Your task to perform on an android device: Add razer kraken to the cart on costco, then select checkout. Image 0: 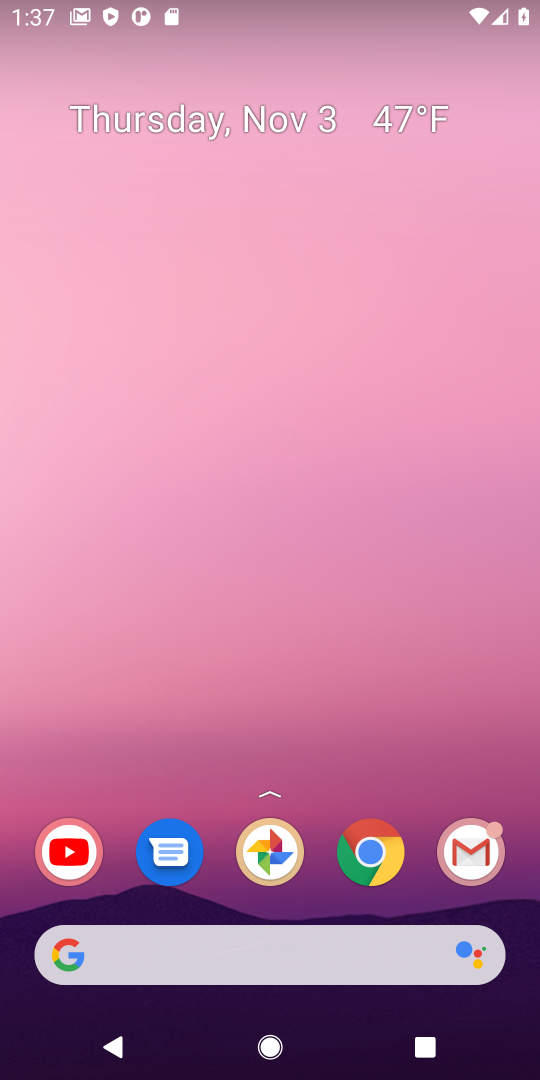
Step 0: click (383, 860)
Your task to perform on an android device: Add razer kraken to the cart on costco, then select checkout. Image 1: 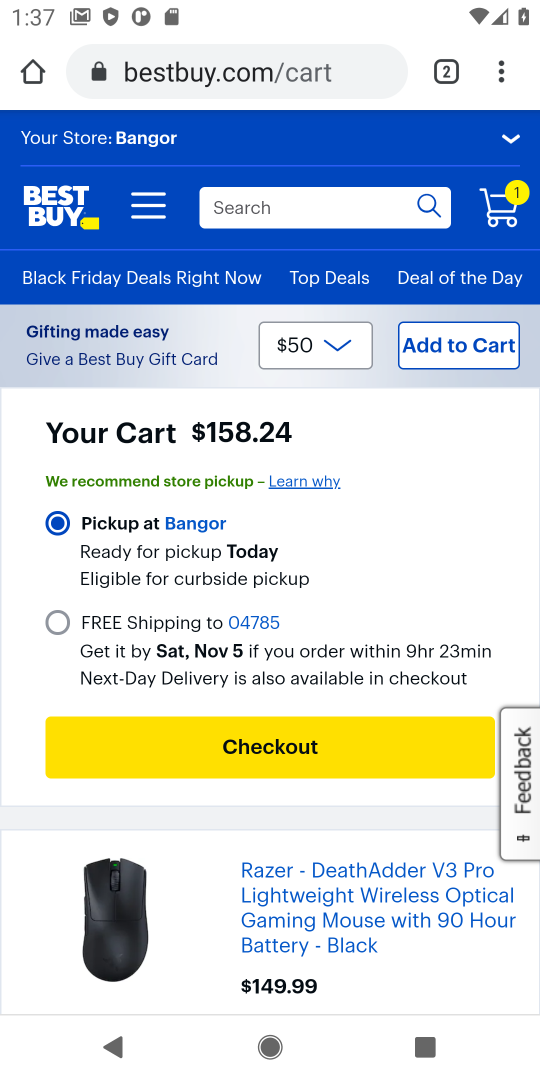
Step 1: click (263, 81)
Your task to perform on an android device: Add razer kraken to the cart on costco, then select checkout. Image 2: 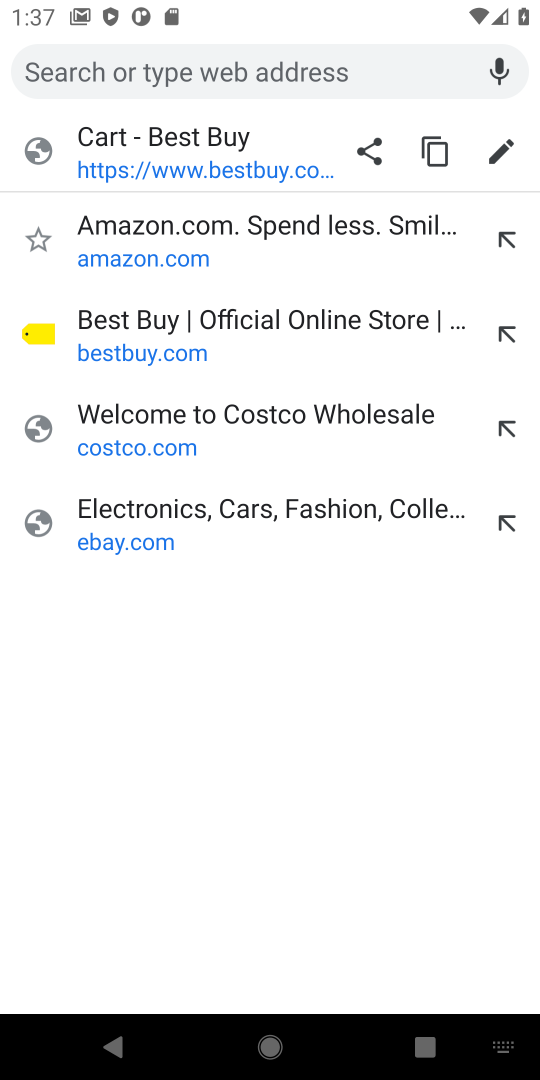
Step 2: type "costco.com"
Your task to perform on an android device: Add razer kraken to the cart on costco, then select checkout. Image 3: 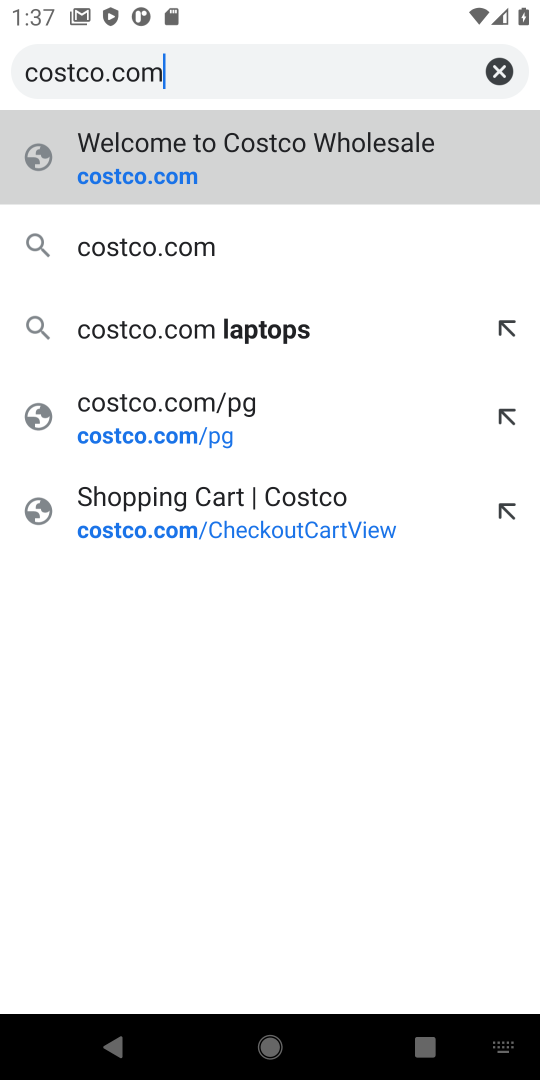
Step 3: click (121, 188)
Your task to perform on an android device: Add razer kraken to the cart on costco, then select checkout. Image 4: 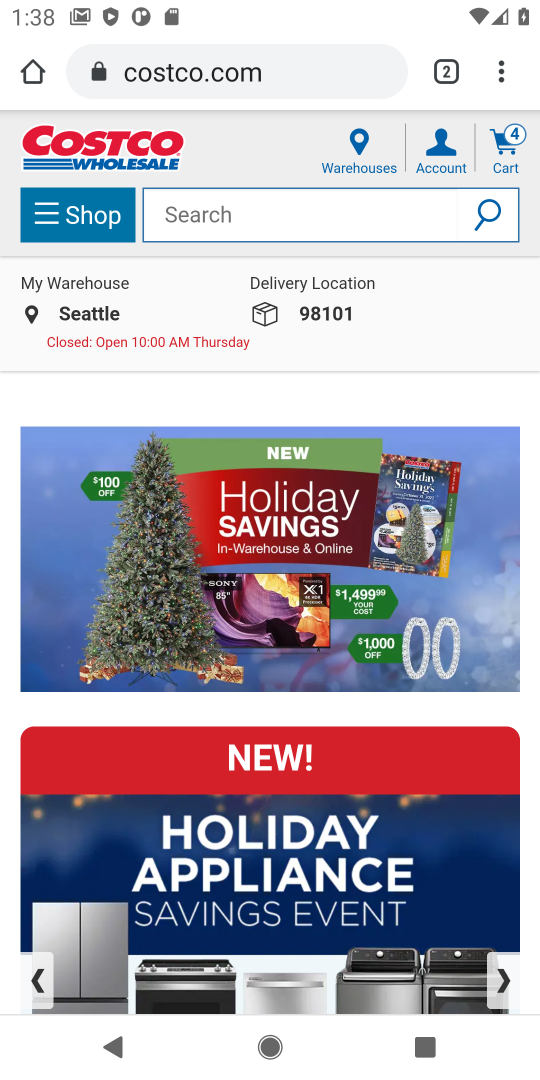
Step 4: click (264, 226)
Your task to perform on an android device: Add razer kraken to the cart on costco, then select checkout. Image 5: 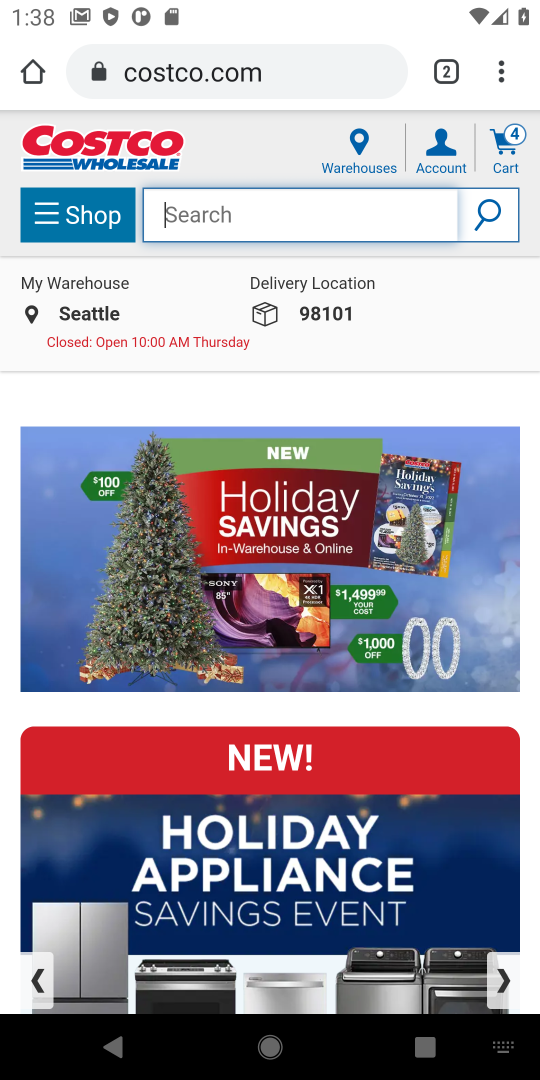
Step 5: type "razer kraken"
Your task to perform on an android device: Add razer kraken to the cart on costco, then select checkout. Image 6: 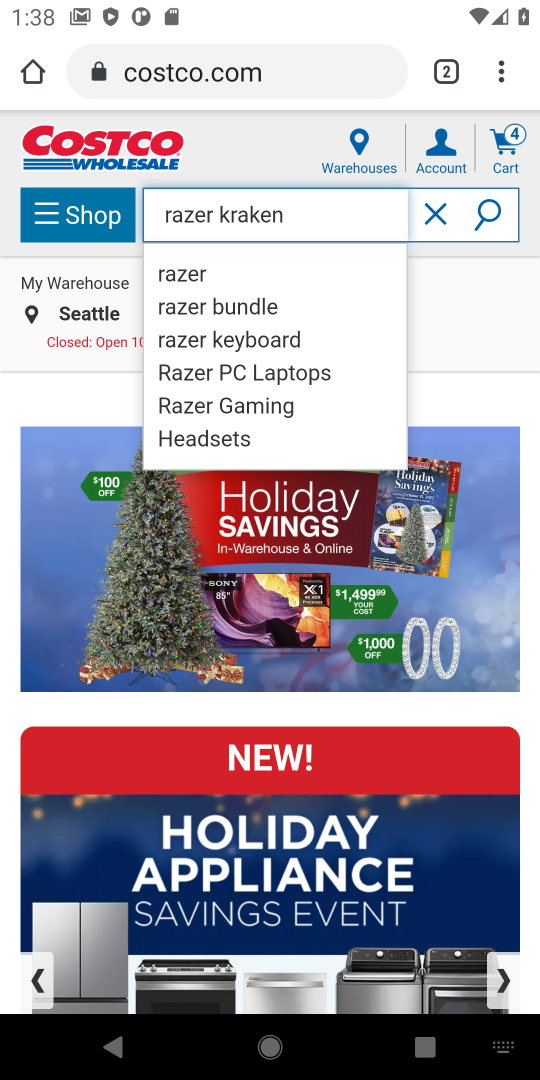
Step 6: click (487, 210)
Your task to perform on an android device: Add razer kraken to the cart on costco, then select checkout. Image 7: 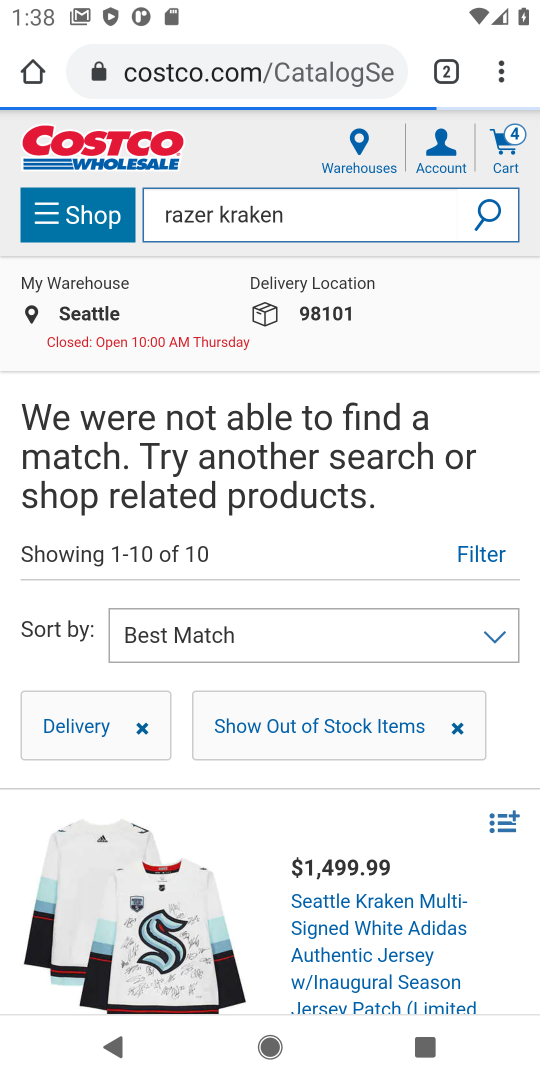
Step 7: task complete